Your task to perform on an android device: move an email to a new category in the gmail app Image 0: 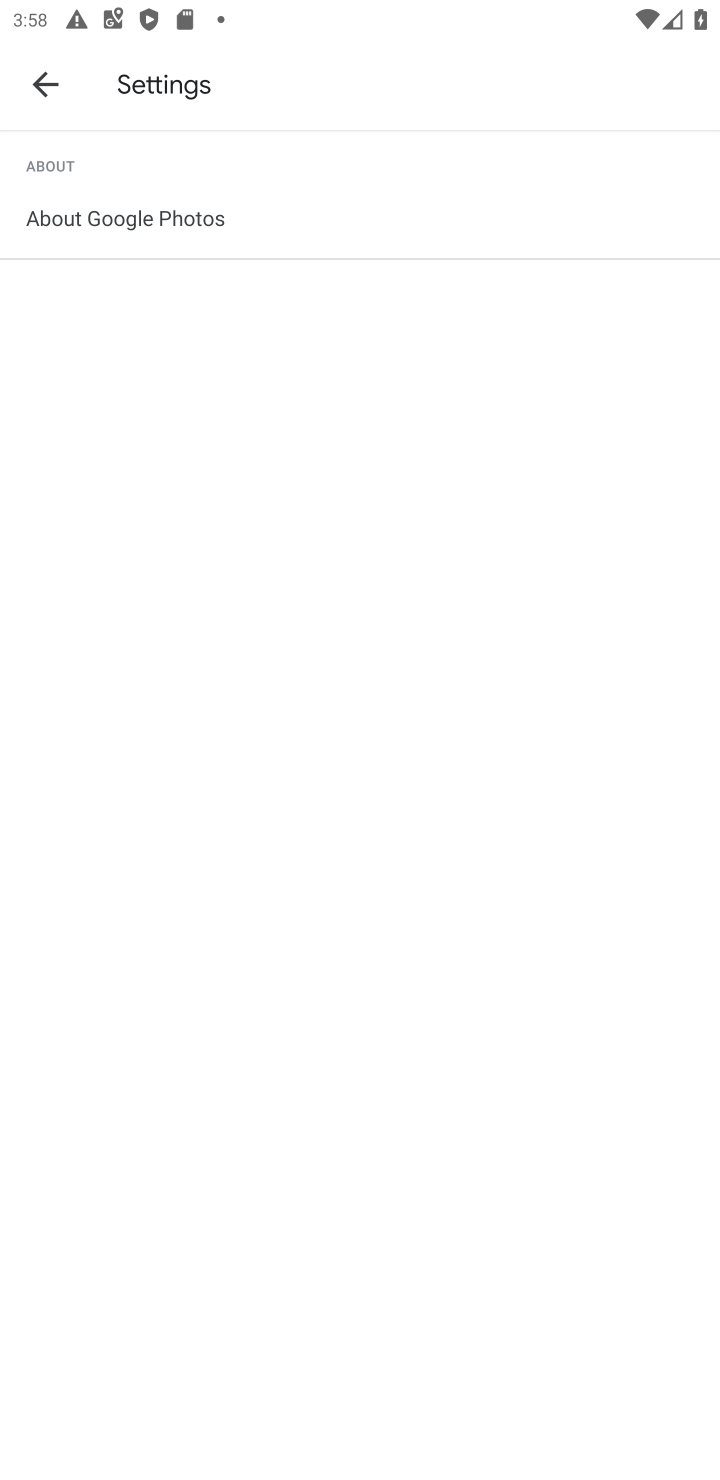
Step 0: press home button
Your task to perform on an android device: move an email to a new category in the gmail app Image 1: 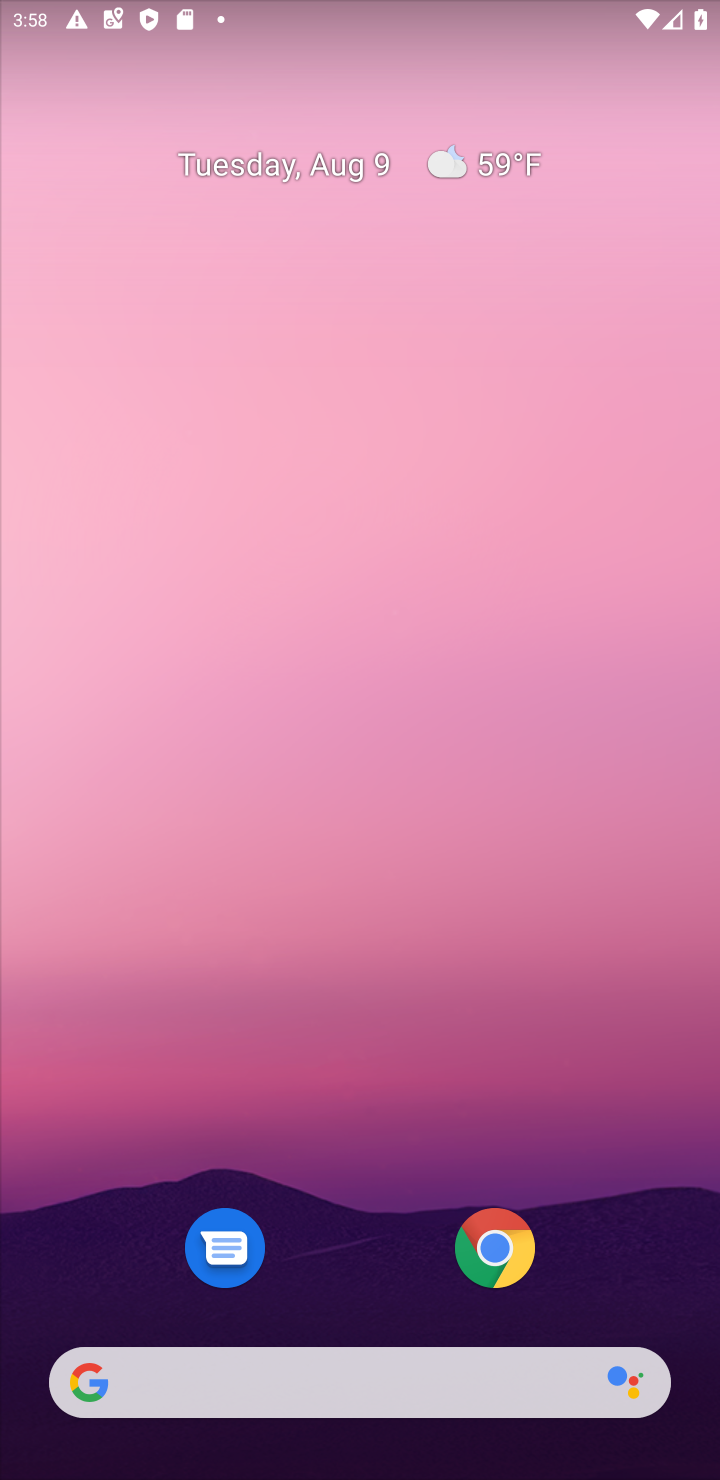
Step 1: drag from (381, 1221) to (96, 541)
Your task to perform on an android device: move an email to a new category in the gmail app Image 2: 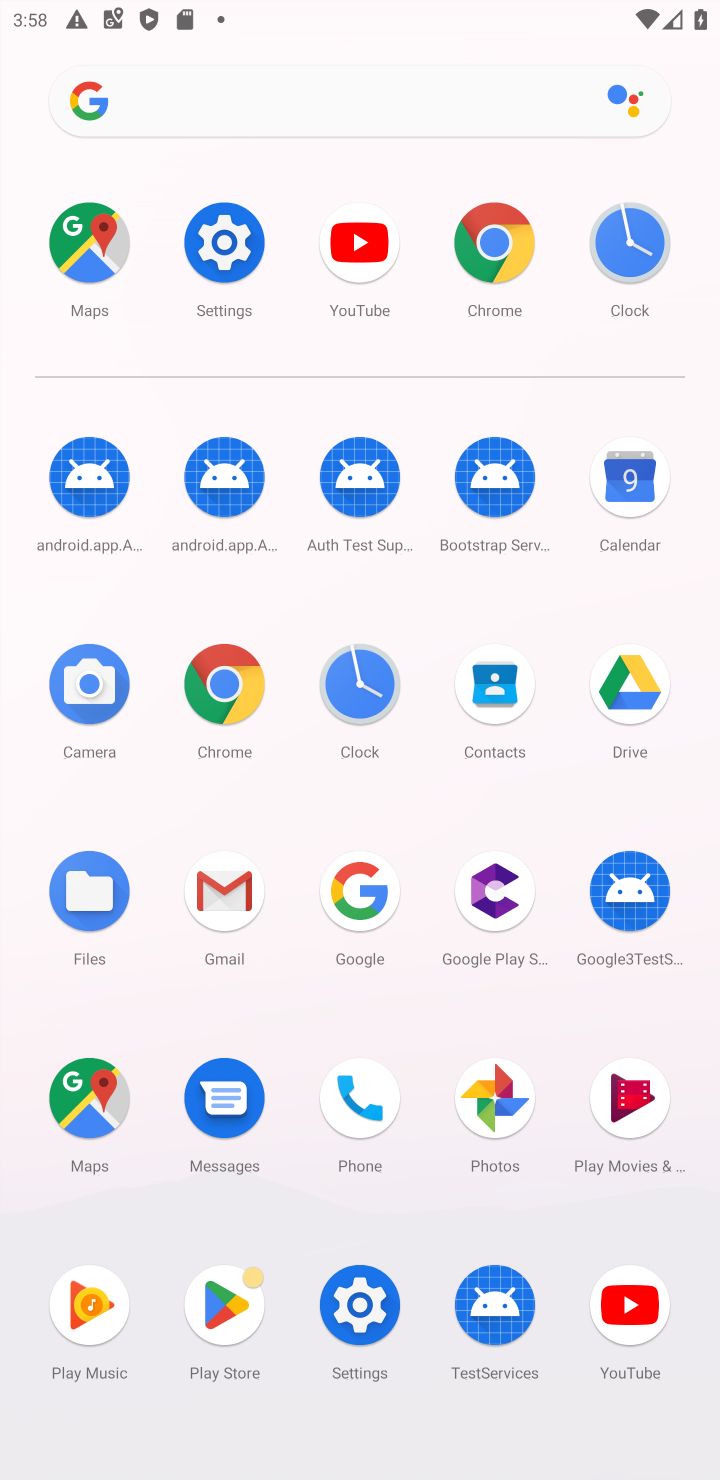
Step 2: click (213, 896)
Your task to perform on an android device: move an email to a new category in the gmail app Image 3: 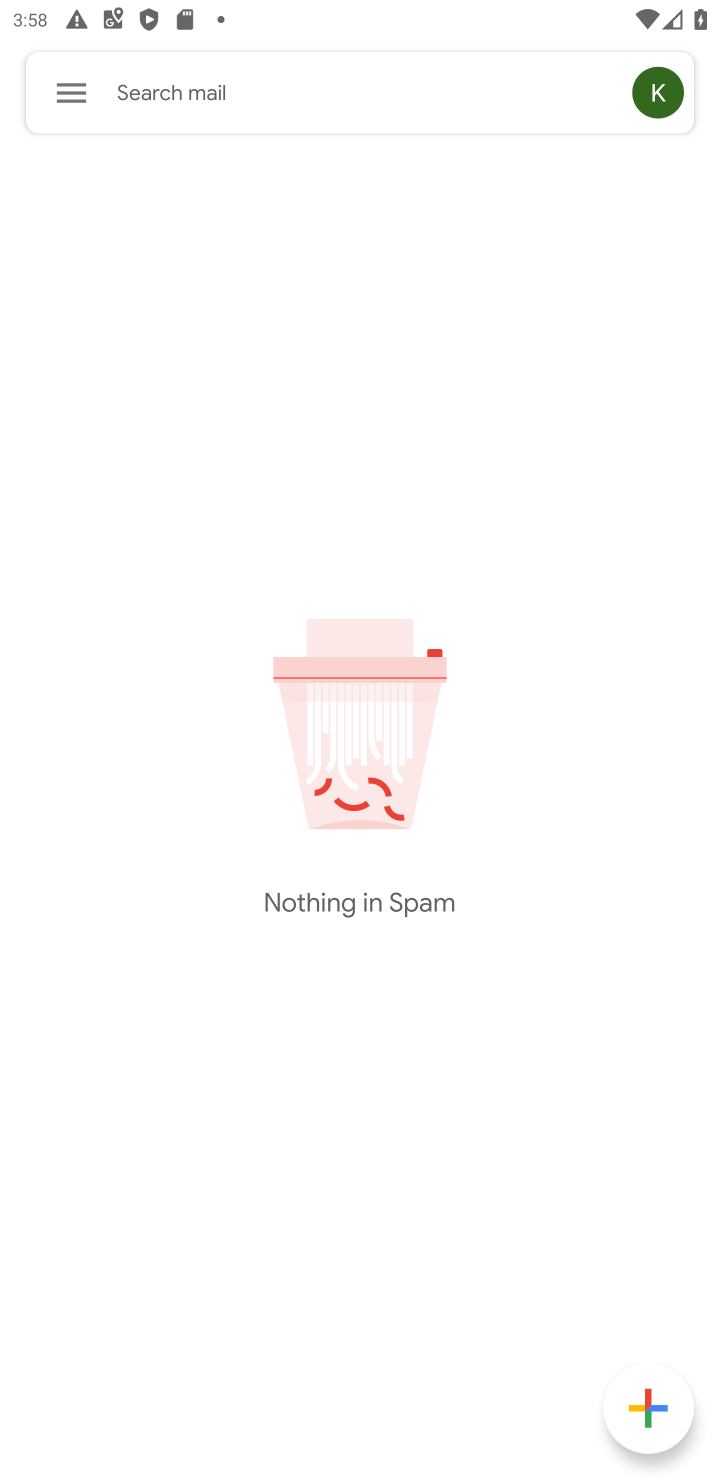
Step 3: click (74, 98)
Your task to perform on an android device: move an email to a new category in the gmail app Image 4: 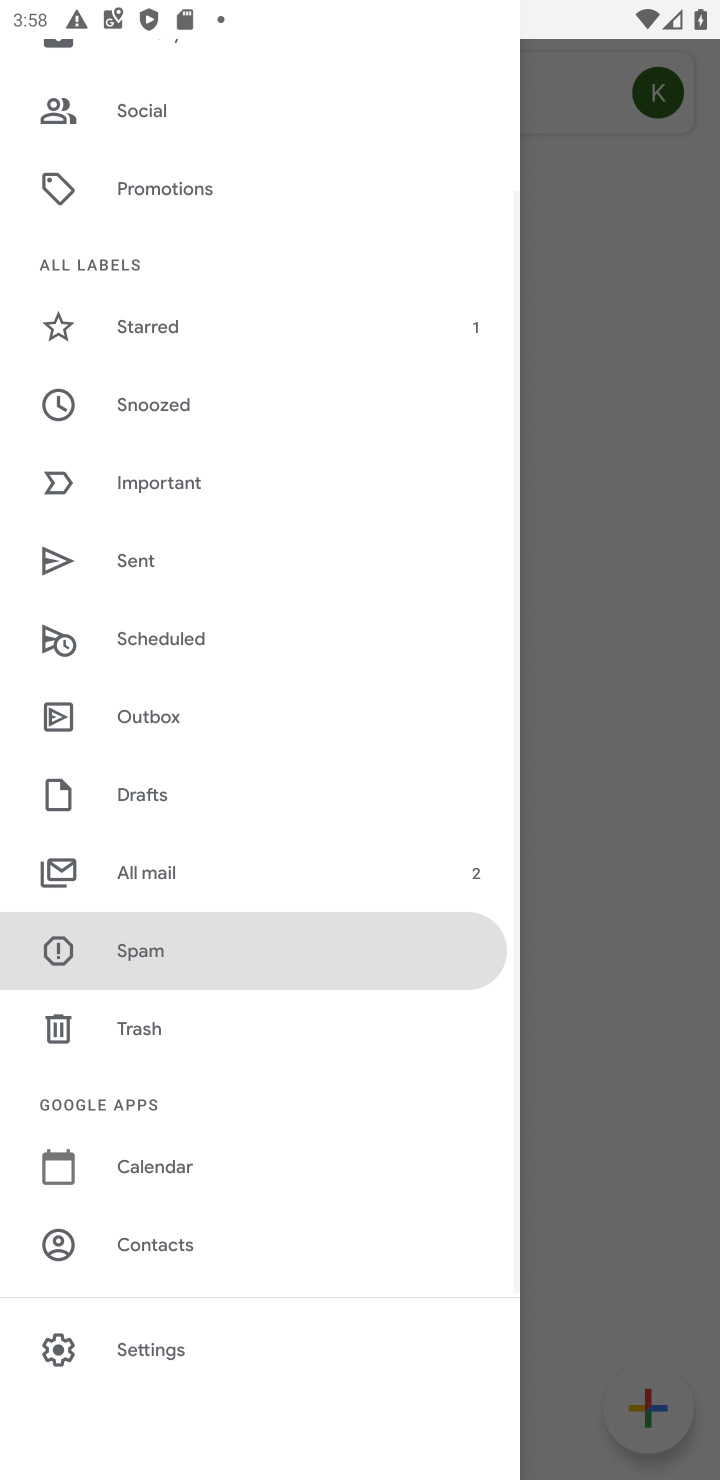
Step 4: click (170, 868)
Your task to perform on an android device: move an email to a new category in the gmail app Image 5: 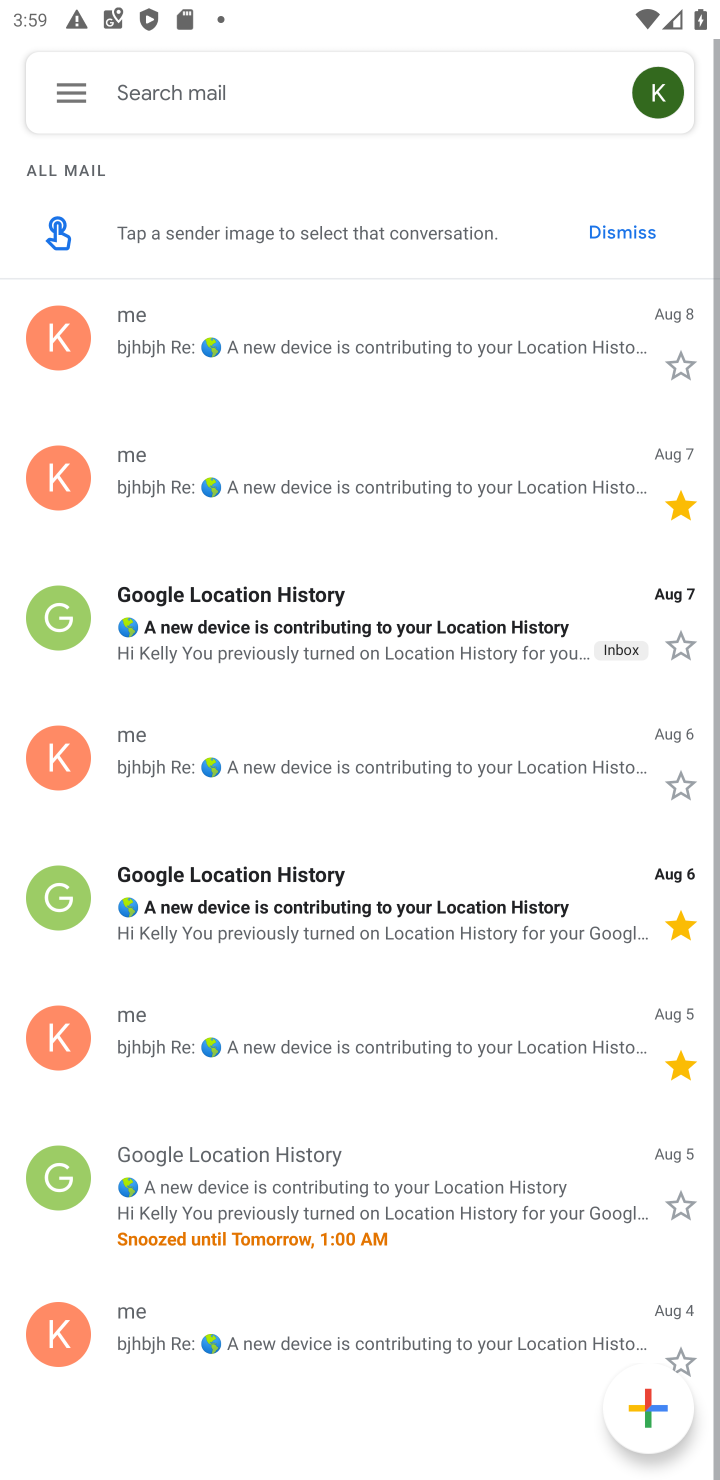
Step 5: click (271, 330)
Your task to perform on an android device: move an email to a new category in the gmail app Image 6: 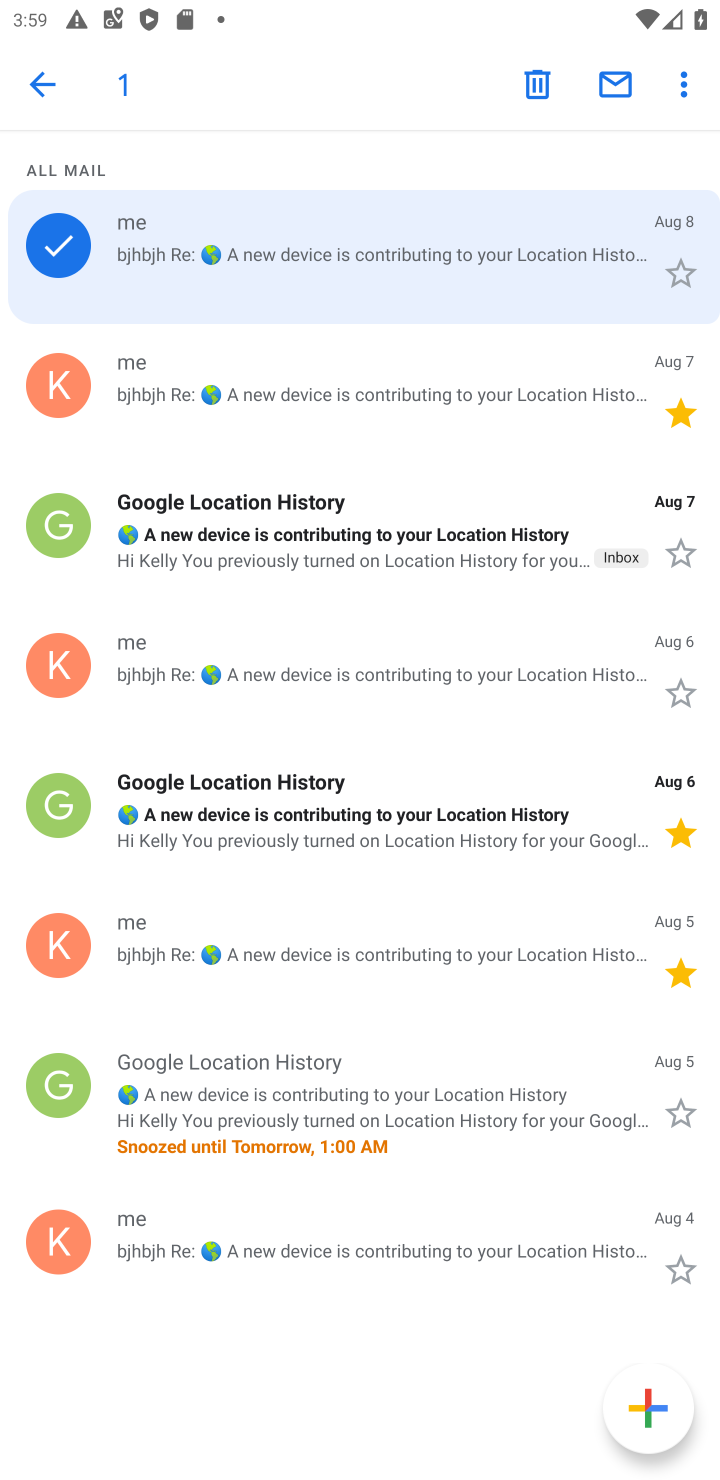
Step 6: click (689, 85)
Your task to perform on an android device: move an email to a new category in the gmail app Image 7: 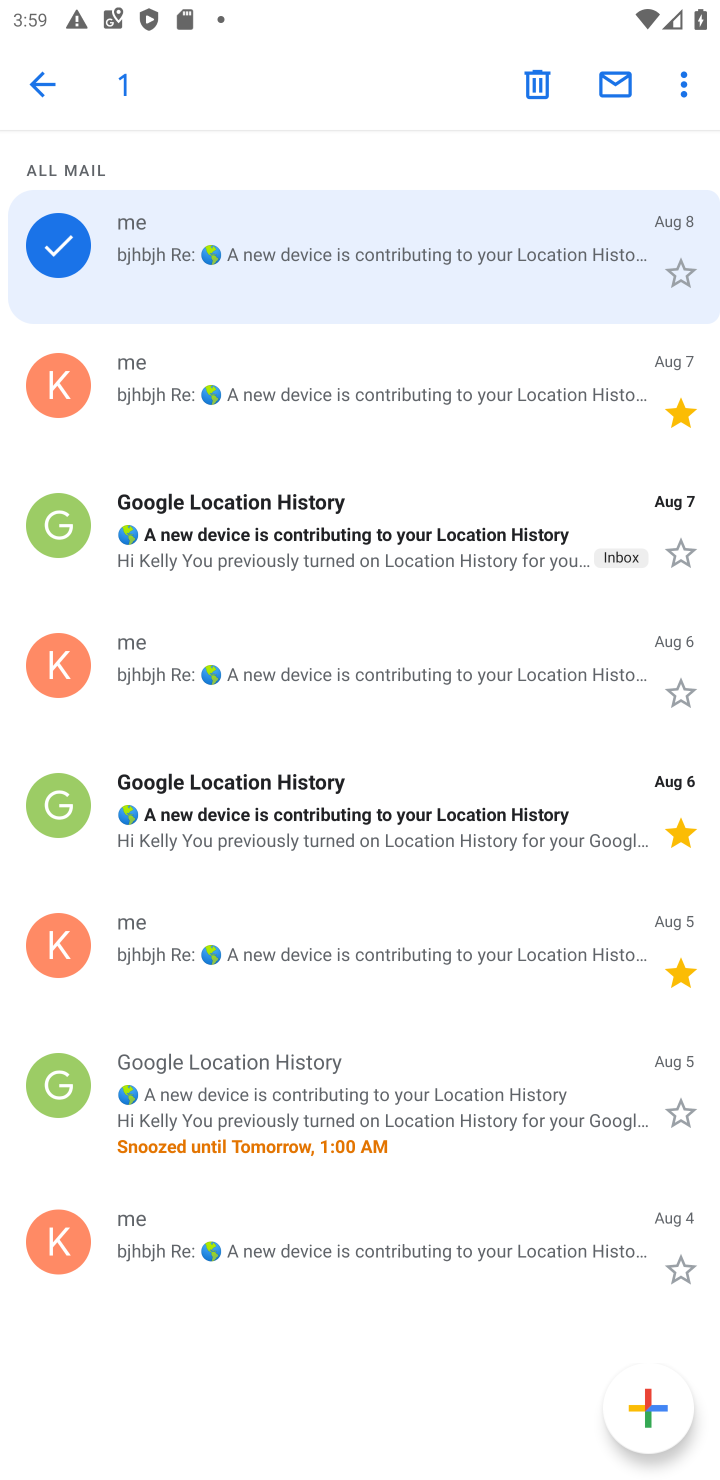
Step 7: click (689, 85)
Your task to perform on an android device: move an email to a new category in the gmail app Image 8: 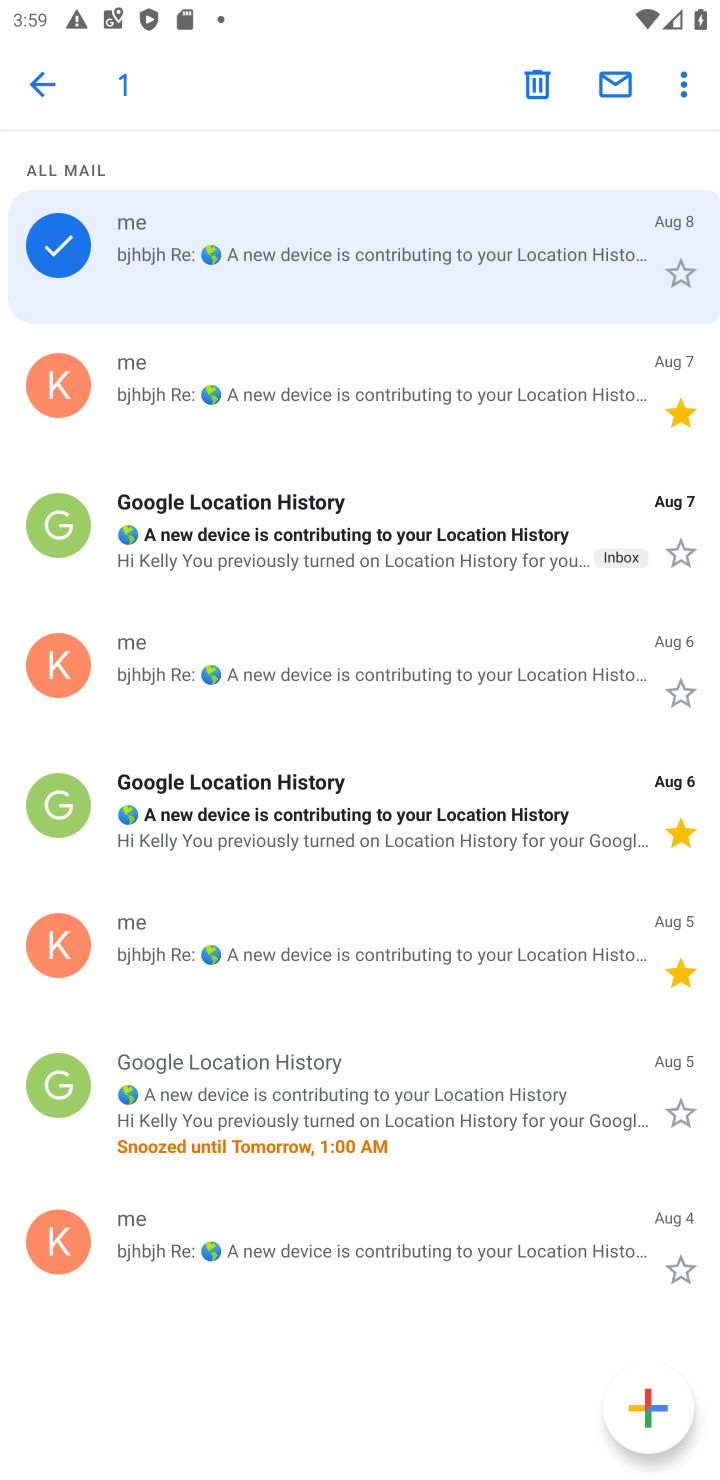
Step 8: click (688, 64)
Your task to perform on an android device: move an email to a new category in the gmail app Image 9: 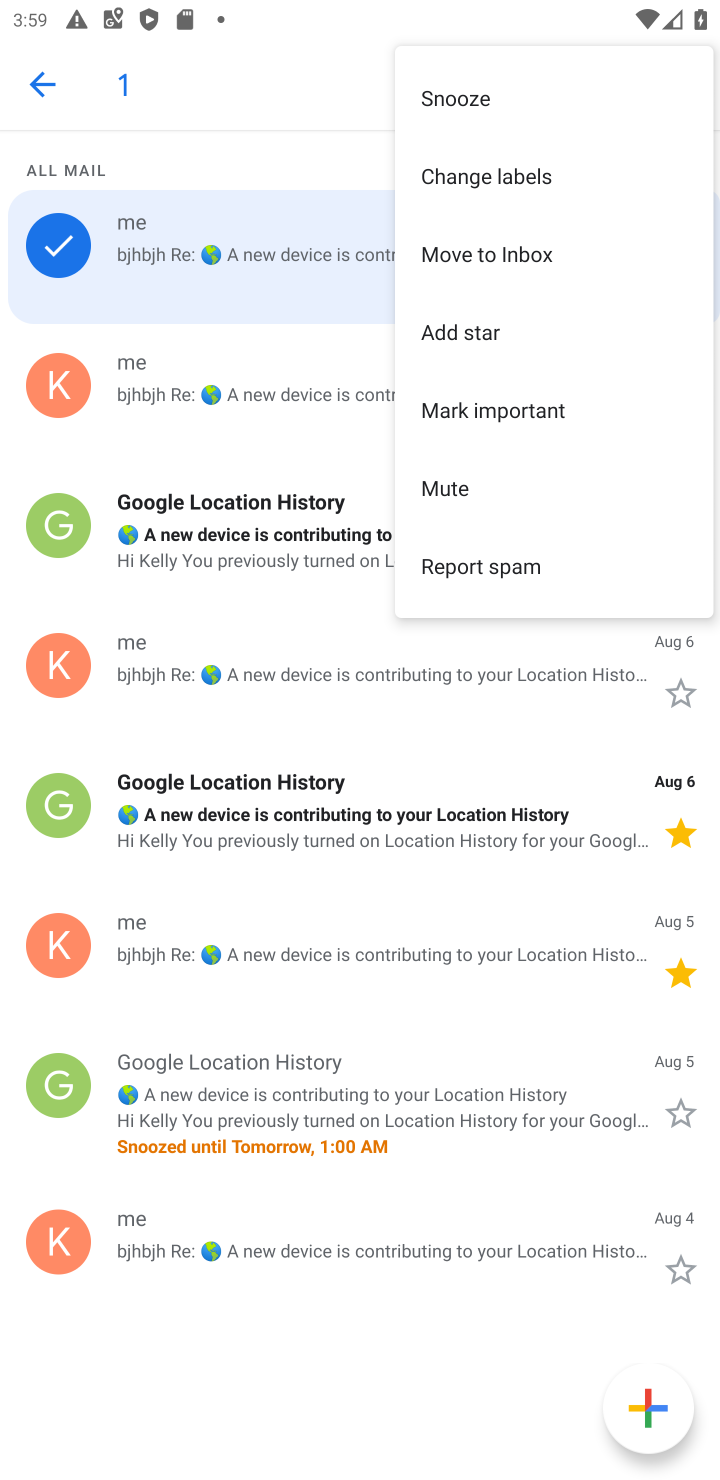
Step 9: click (59, 84)
Your task to perform on an android device: move an email to a new category in the gmail app Image 10: 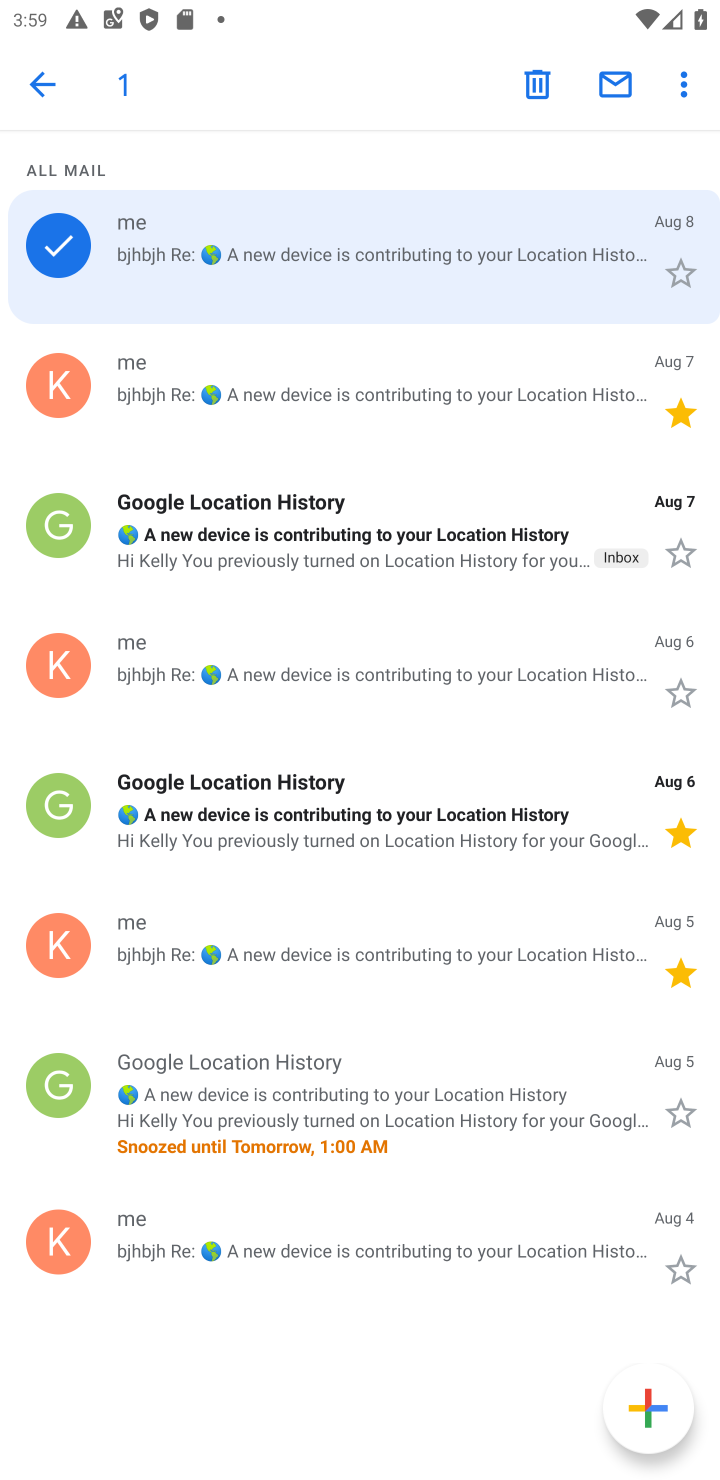
Step 10: click (59, 84)
Your task to perform on an android device: move an email to a new category in the gmail app Image 11: 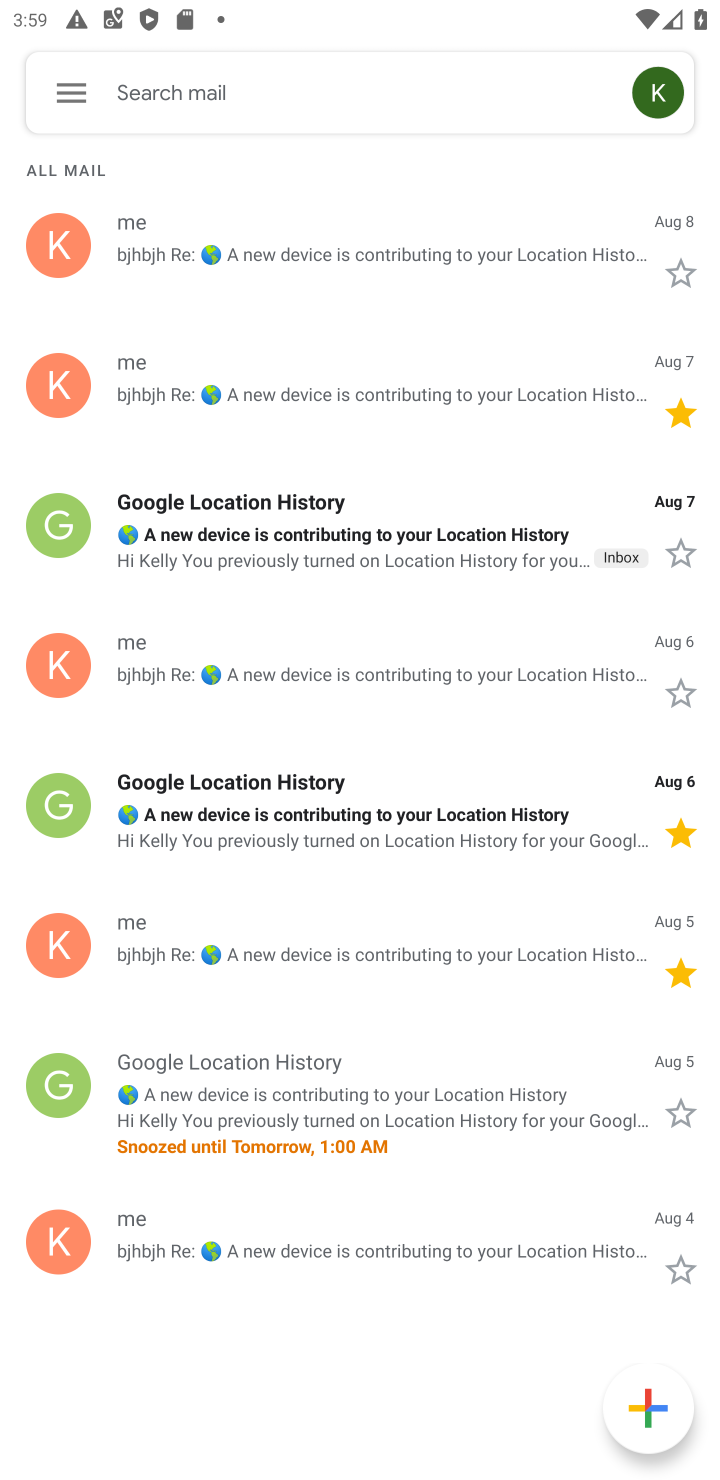
Step 11: click (59, 84)
Your task to perform on an android device: move an email to a new category in the gmail app Image 12: 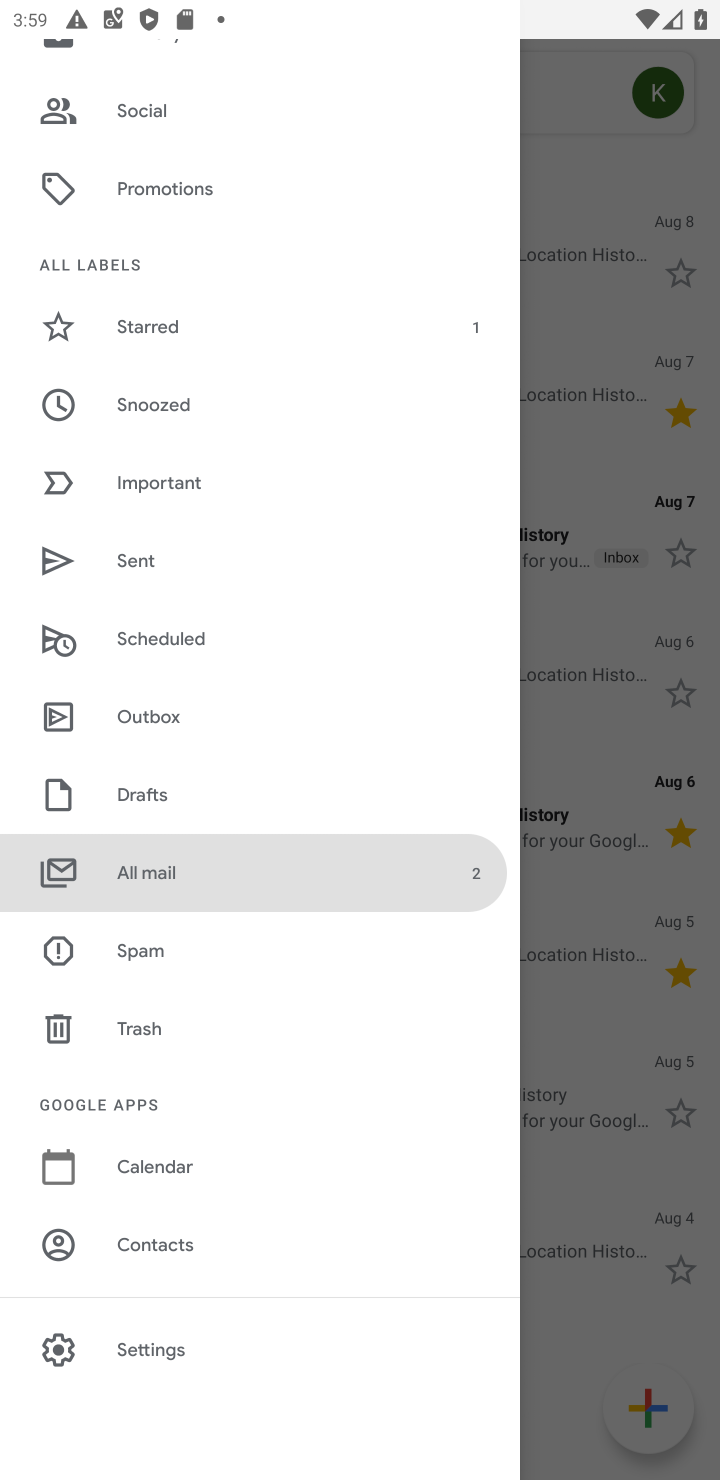
Step 12: click (146, 1312)
Your task to perform on an android device: move an email to a new category in the gmail app Image 13: 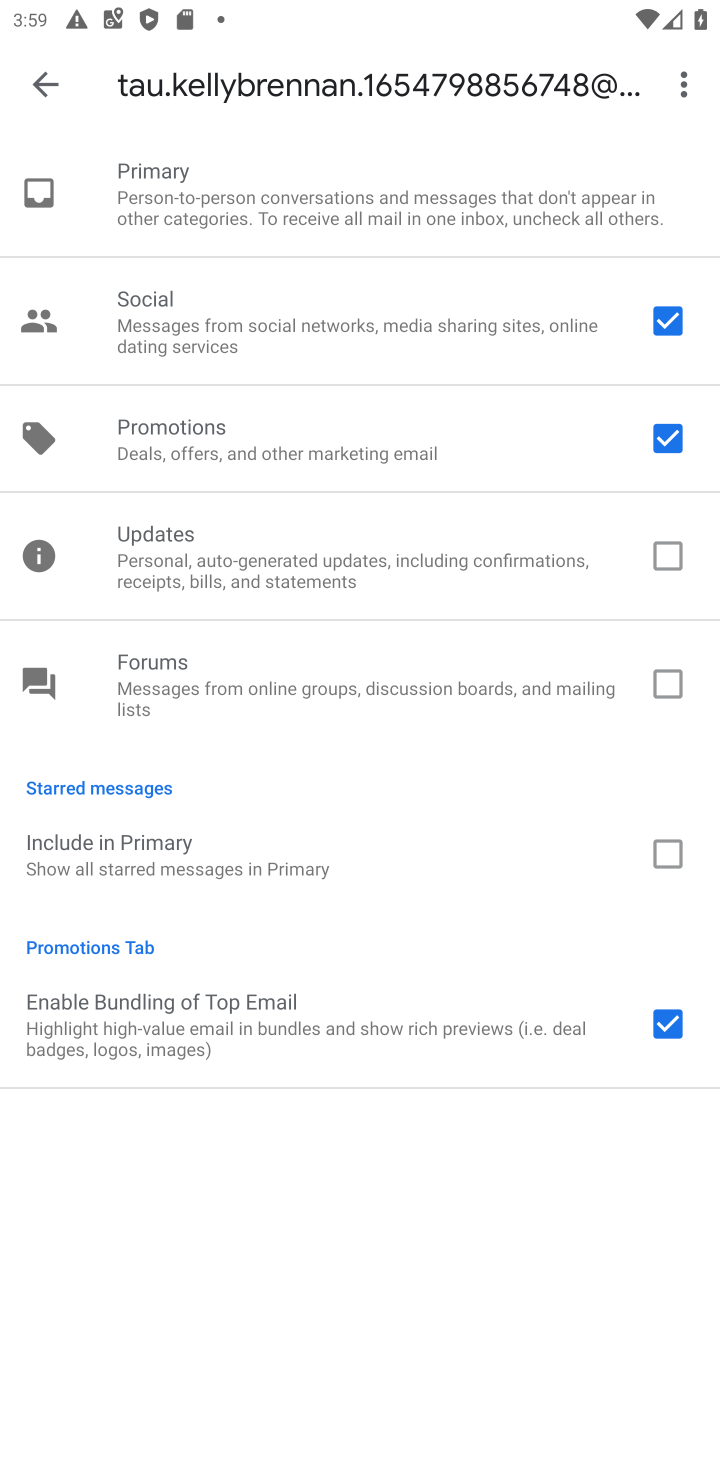
Step 13: click (73, 91)
Your task to perform on an android device: move an email to a new category in the gmail app Image 14: 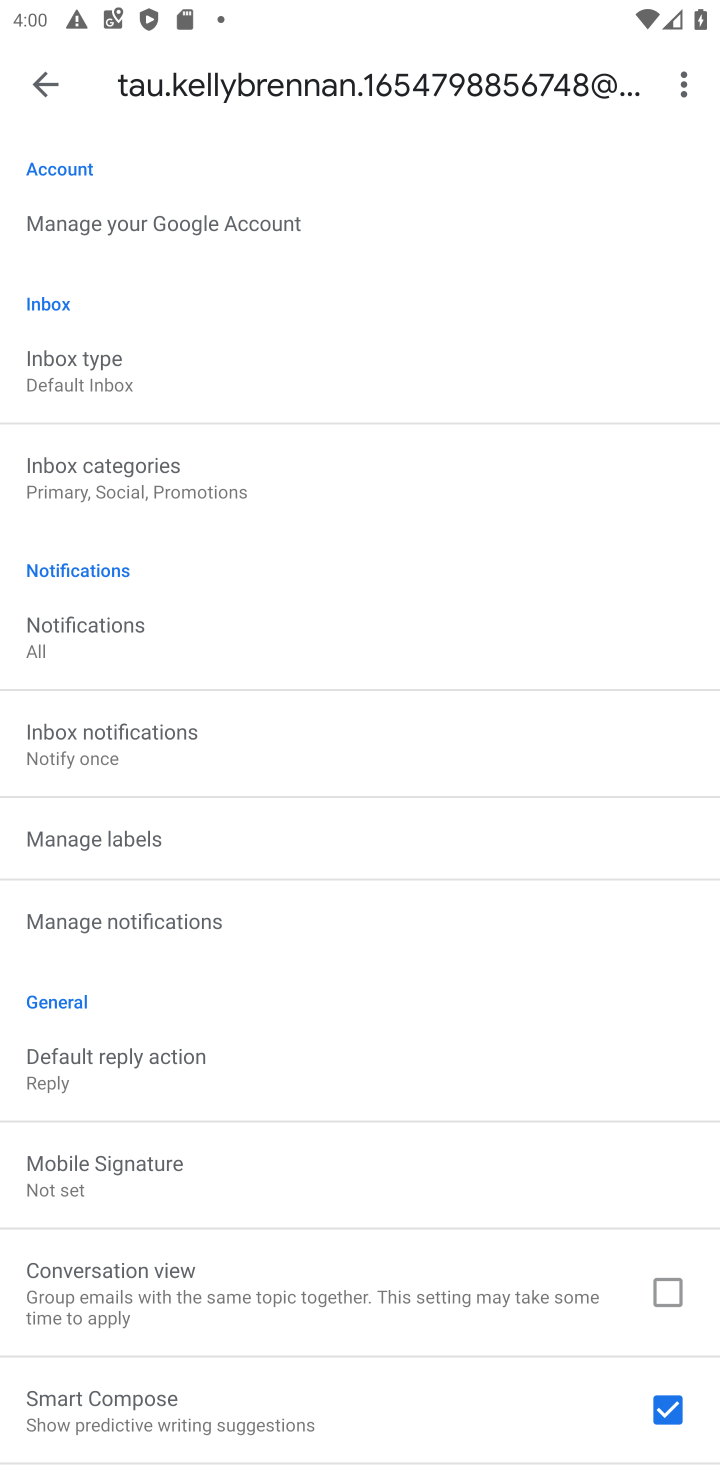
Step 14: click (132, 828)
Your task to perform on an android device: move an email to a new category in the gmail app Image 15: 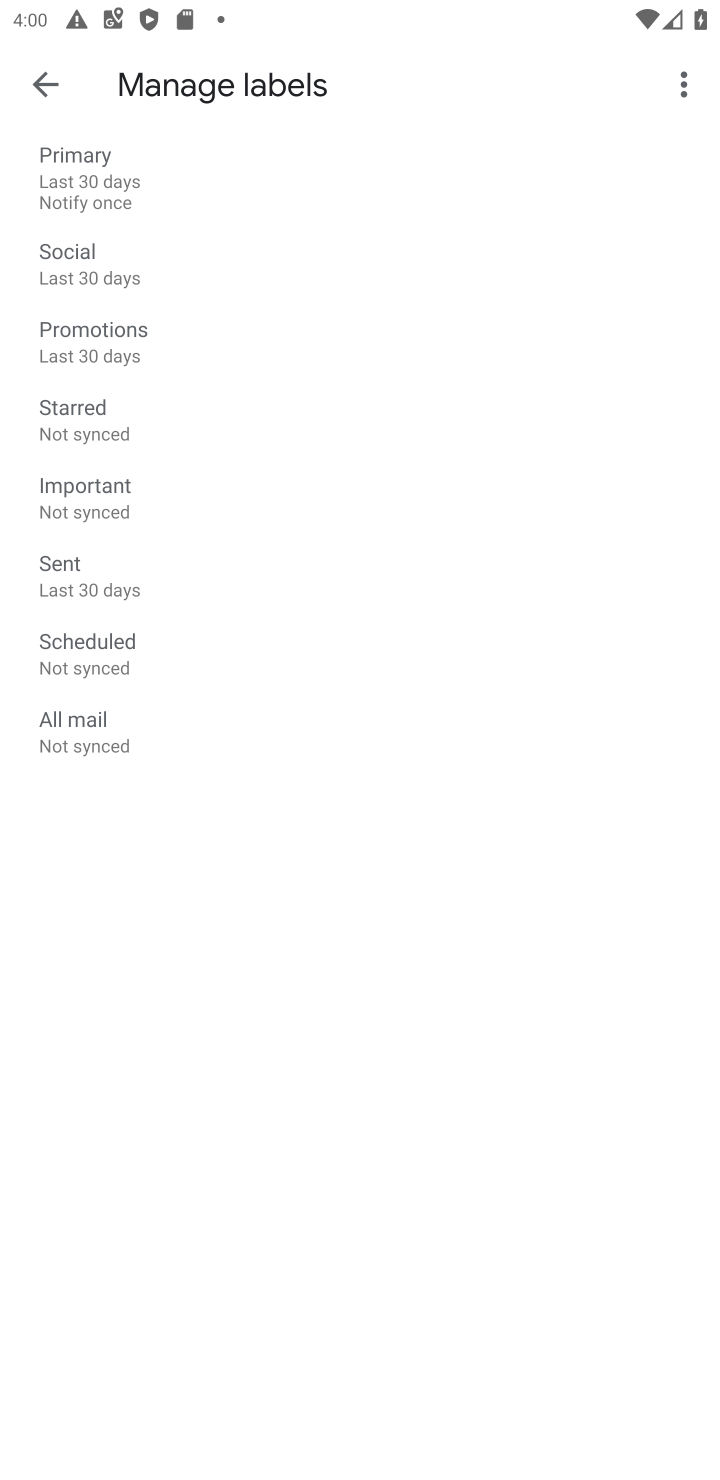
Step 15: click (688, 75)
Your task to perform on an android device: move an email to a new category in the gmail app Image 16: 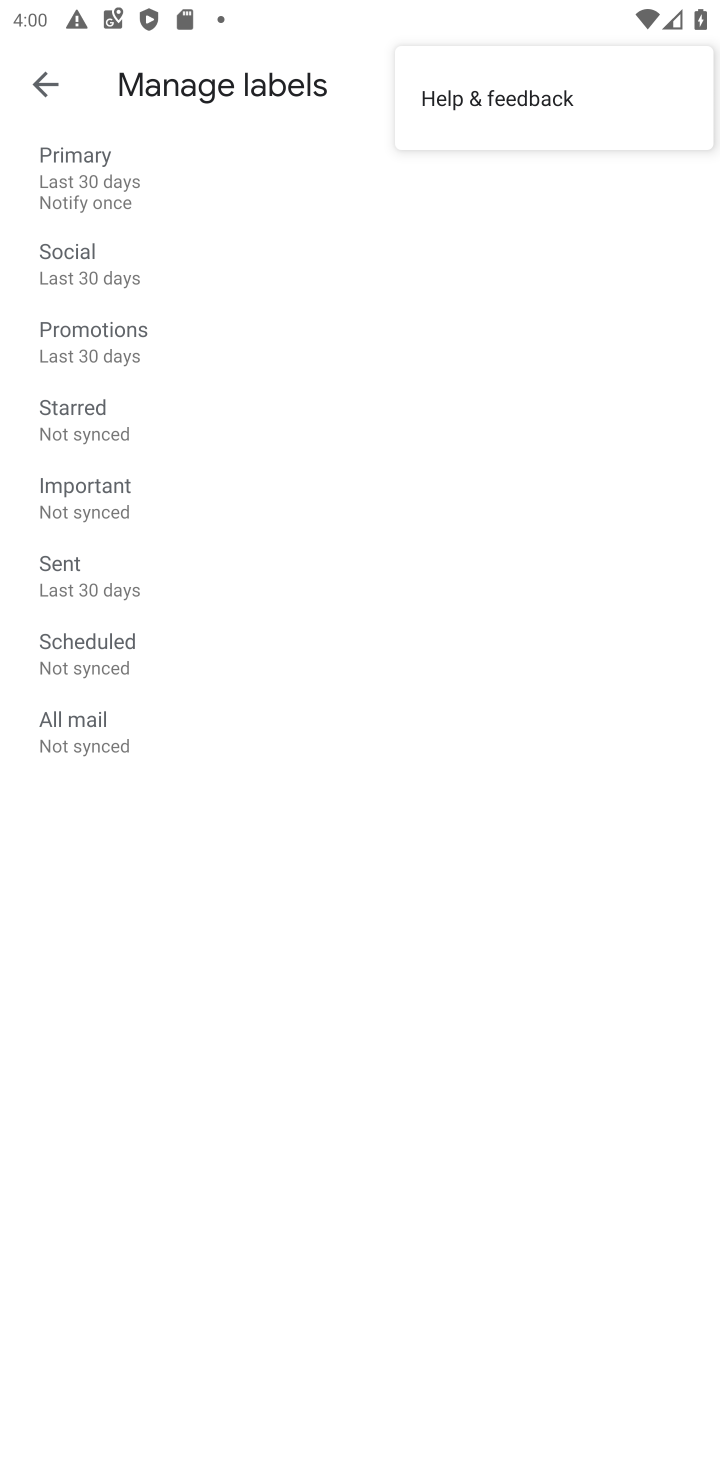
Step 16: task complete